Your task to perform on an android device: Open my contact list Image 0: 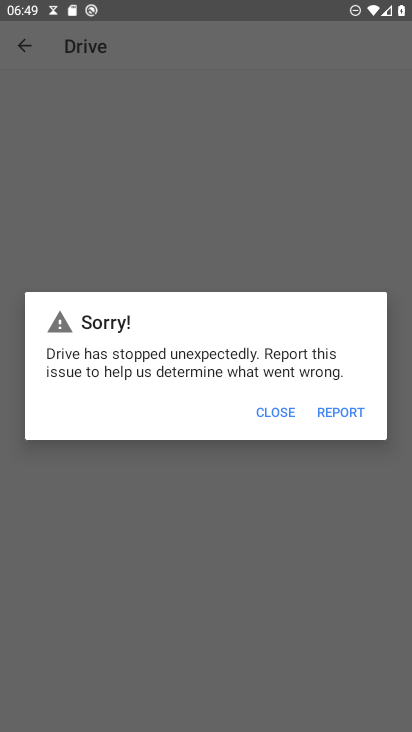
Step 0: press home button
Your task to perform on an android device: Open my contact list Image 1: 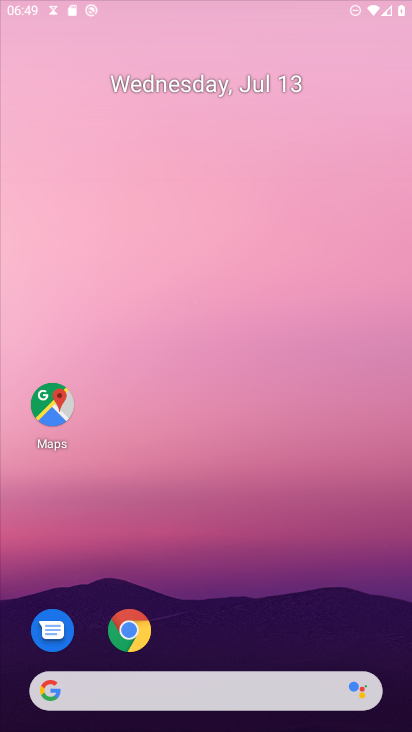
Step 1: drag from (272, 679) to (289, 108)
Your task to perform on an android device: Open my contact list Image 2: 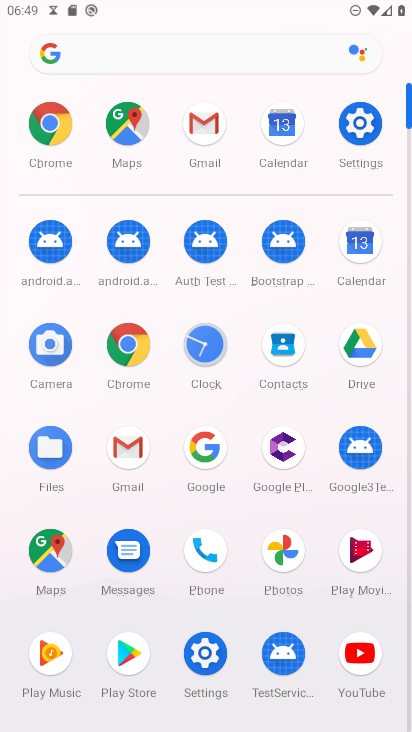
Step 2: click (273, 344)
Your task to perform on an android device: Open my contact list Image 3: 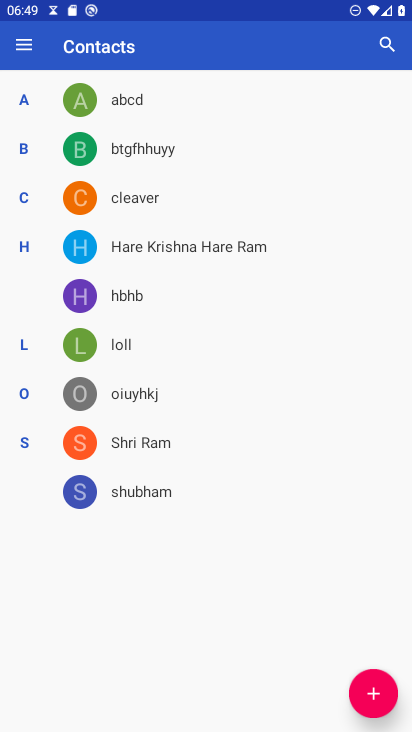
Step 3: task complete